Your task to perform on an android device: View the shopping cart on bestbuy.com. Add "logitech g502" to the cart on bestbuy.com, then select checkout. Image 0: 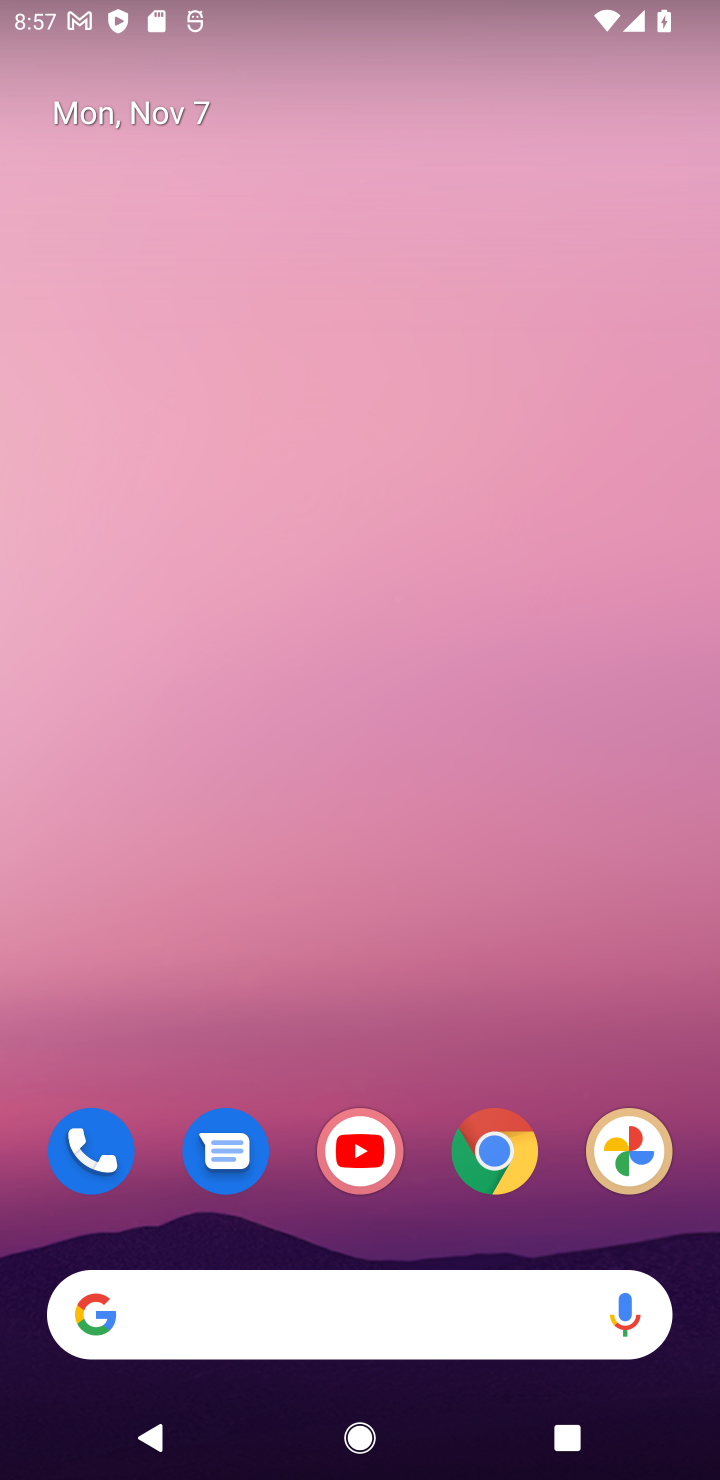
Step 0: click (501, 1156)
Your task to perform on an android device: View the shopping cart on bestbuy.com. Add "logitech g502" to the cart on bestbuy.com, then select checkout. Image 1: 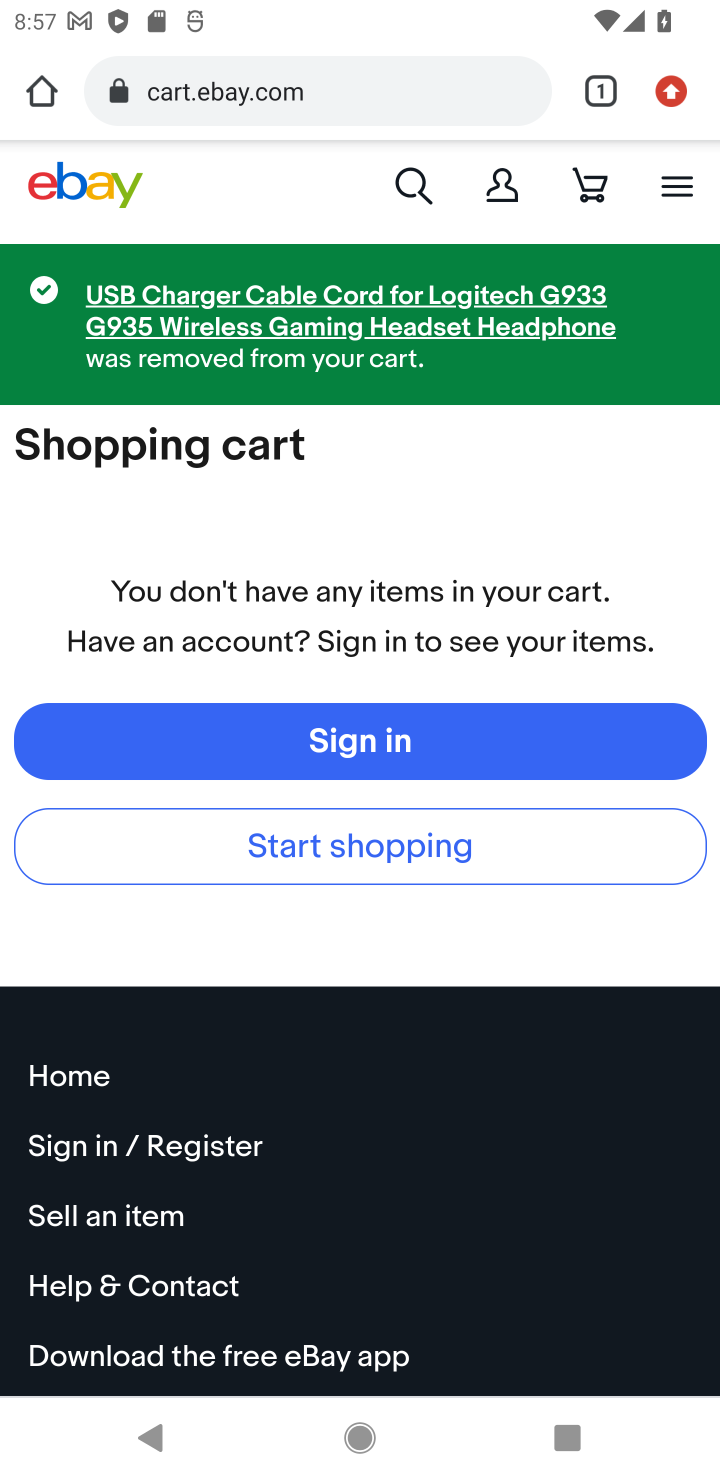
Step 1: click (207, 94)
Your task to perform on an android device: View the shopping cart on bestbuy.com. Add "logitech g502" to the cart on bestbuy.com, then select checkout. Image 2: 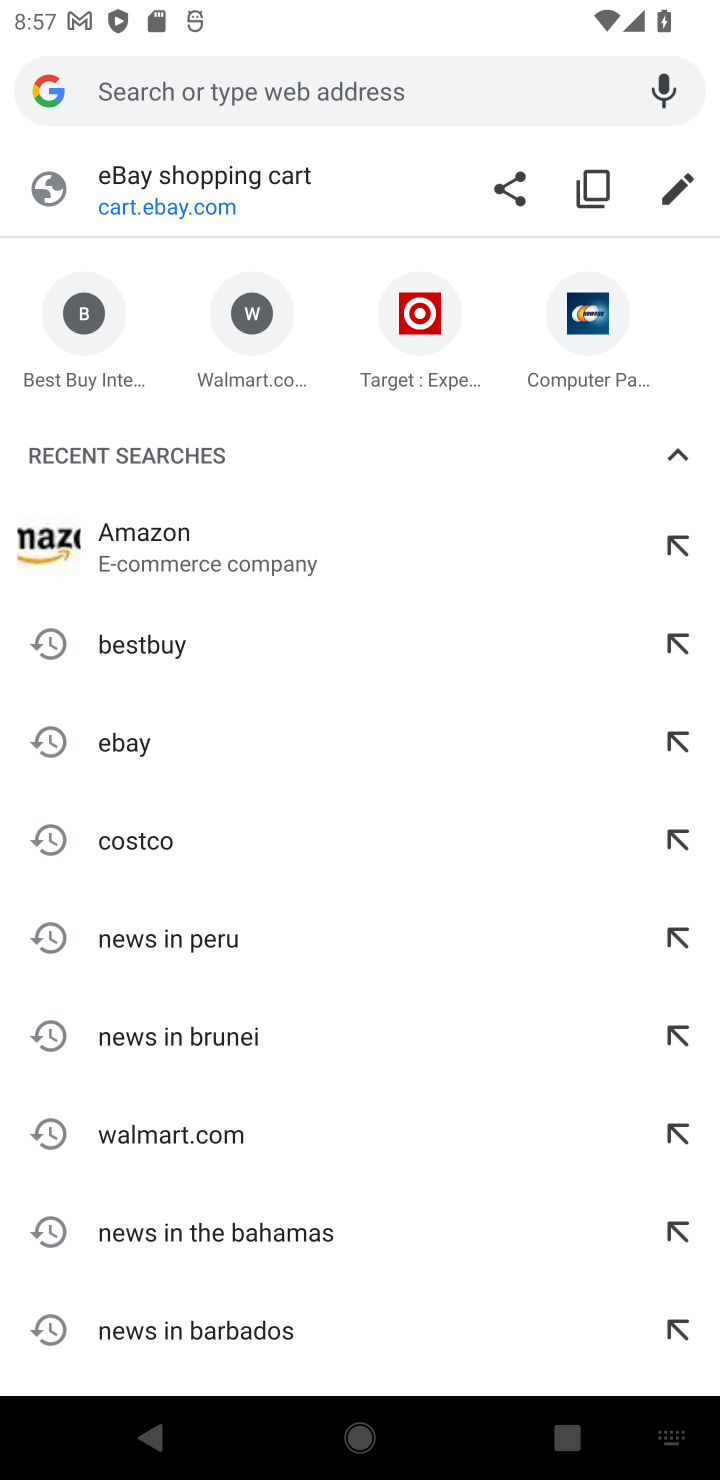
Step 2: click (129, 640)
Your task to perform on an android device: View the shopping cart on bestbuy.com. Add "logitech g502" to the cart on bestbuy.com, then select checkout. Image 3: 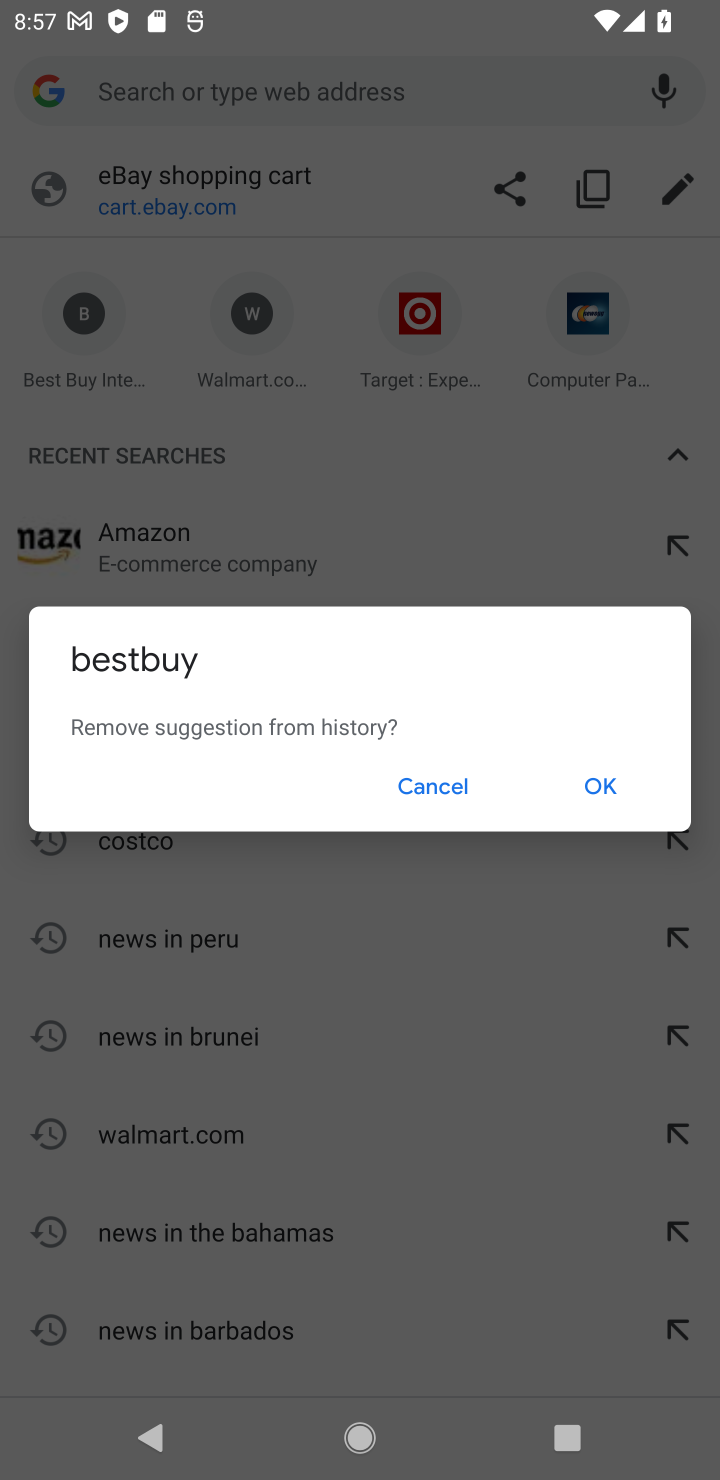
Step 3: click (449, 791)
Your task to perform on an android device: View the shopping cart on bestbuy.com. Add "logitech g502" to the cart on bestbuy.com, then select checkout. Image 4: 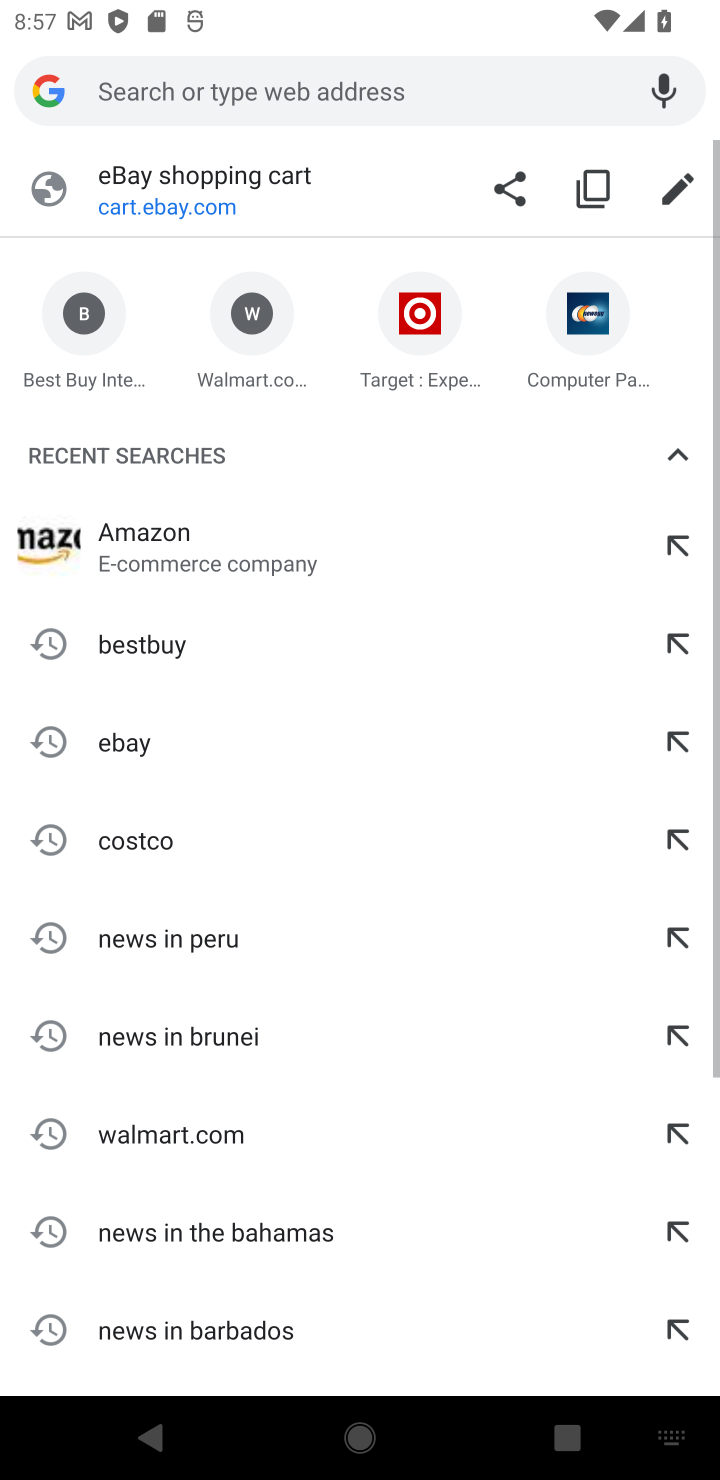
Step 4: click (128, 644)
Your task to perform on an android device: View the shopping cart on bestbuy.com. Add "logitech g502" to the cart on bestbuy.com, then select checkout. Image 5: 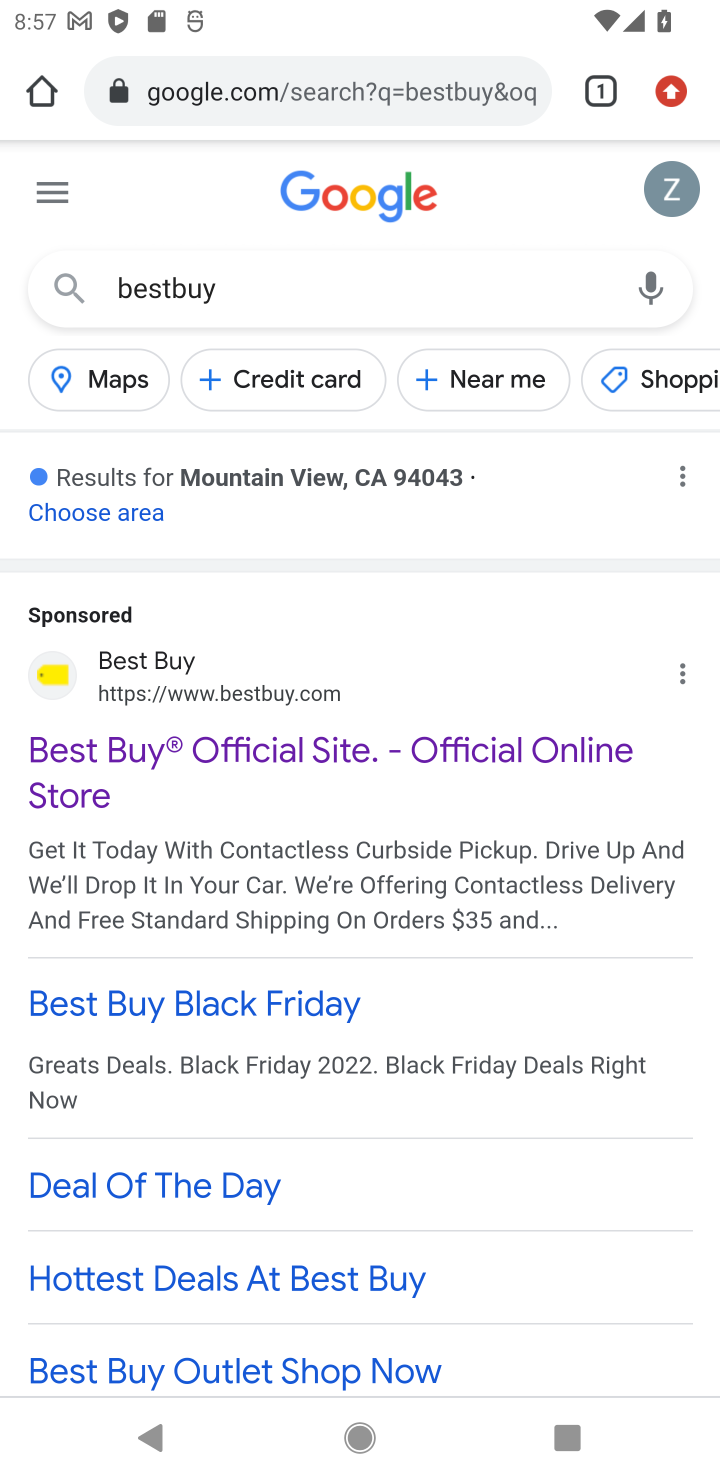
Step 5: click (271, 741)
Your task to perform on an android device: View the shopping cart on bestbuy.com. Add "logitech g502" to the cart on bestbuy.com, then select checkout. Image 6: 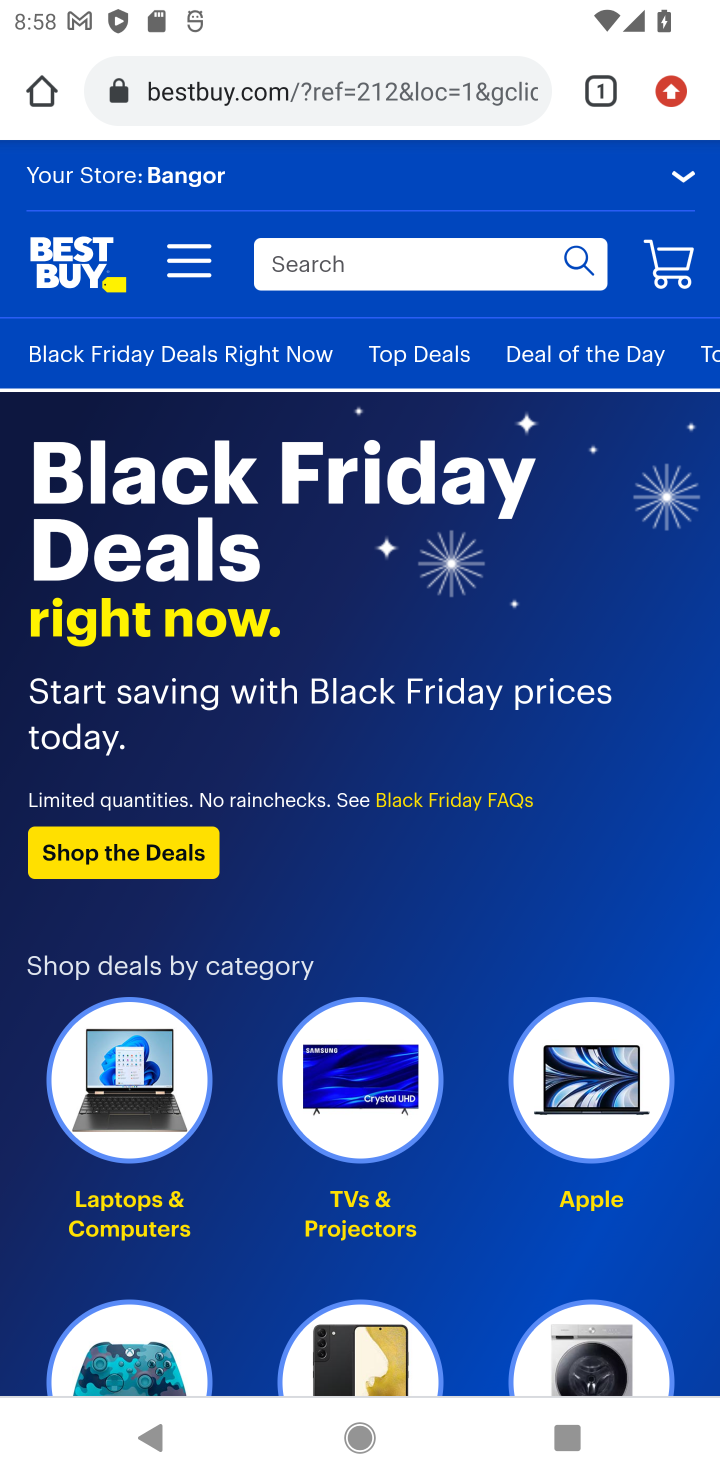
Step 6: click (413, 257)
Your task to perform on an android device: View the shopping cart on bestbuy.com. Add "logitech g502" to the cart on bestbuy.com, then select checkout. Image 7: 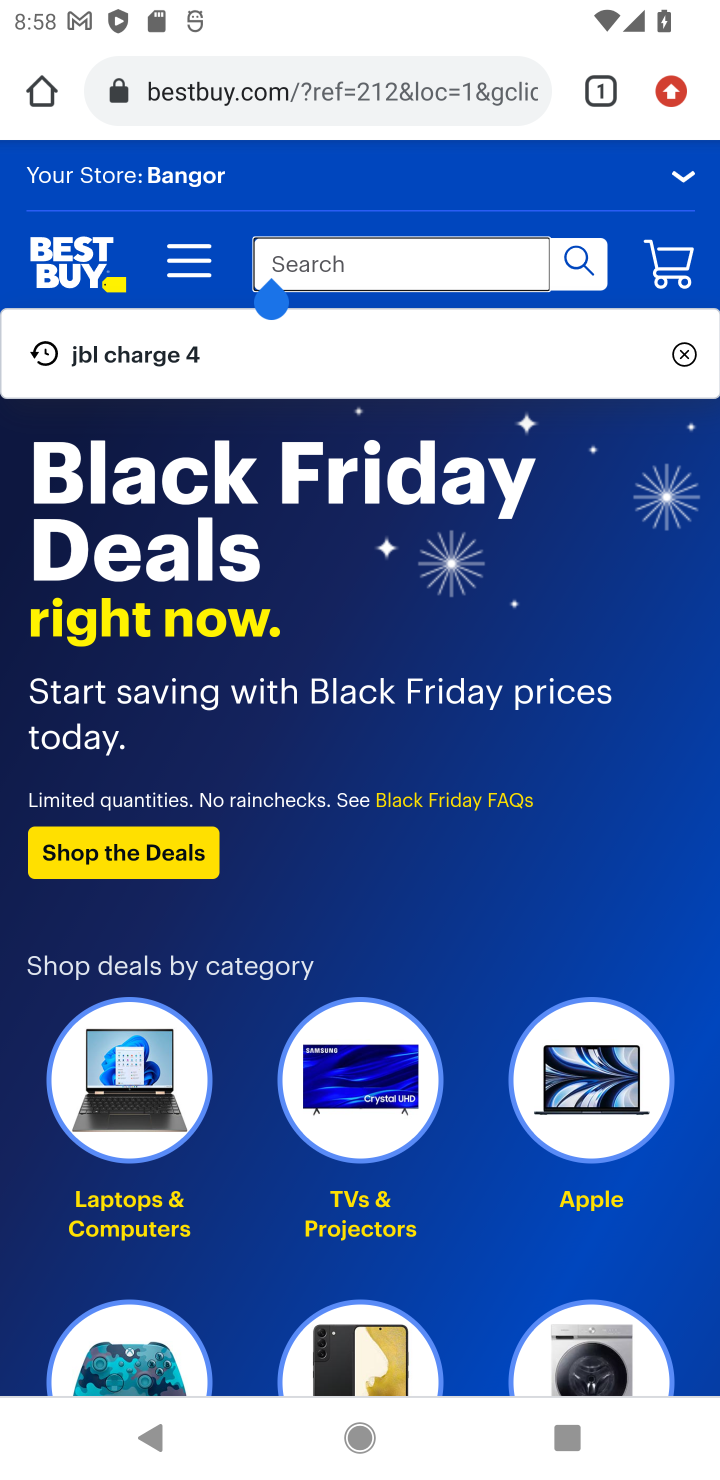
Step 7: click (413, 261)
Your task to perform on an android device: View the shopping cart on bestbuy.com. Add "logitech g502" to the cart on bestbuy.com, then select checkout. Image 8: 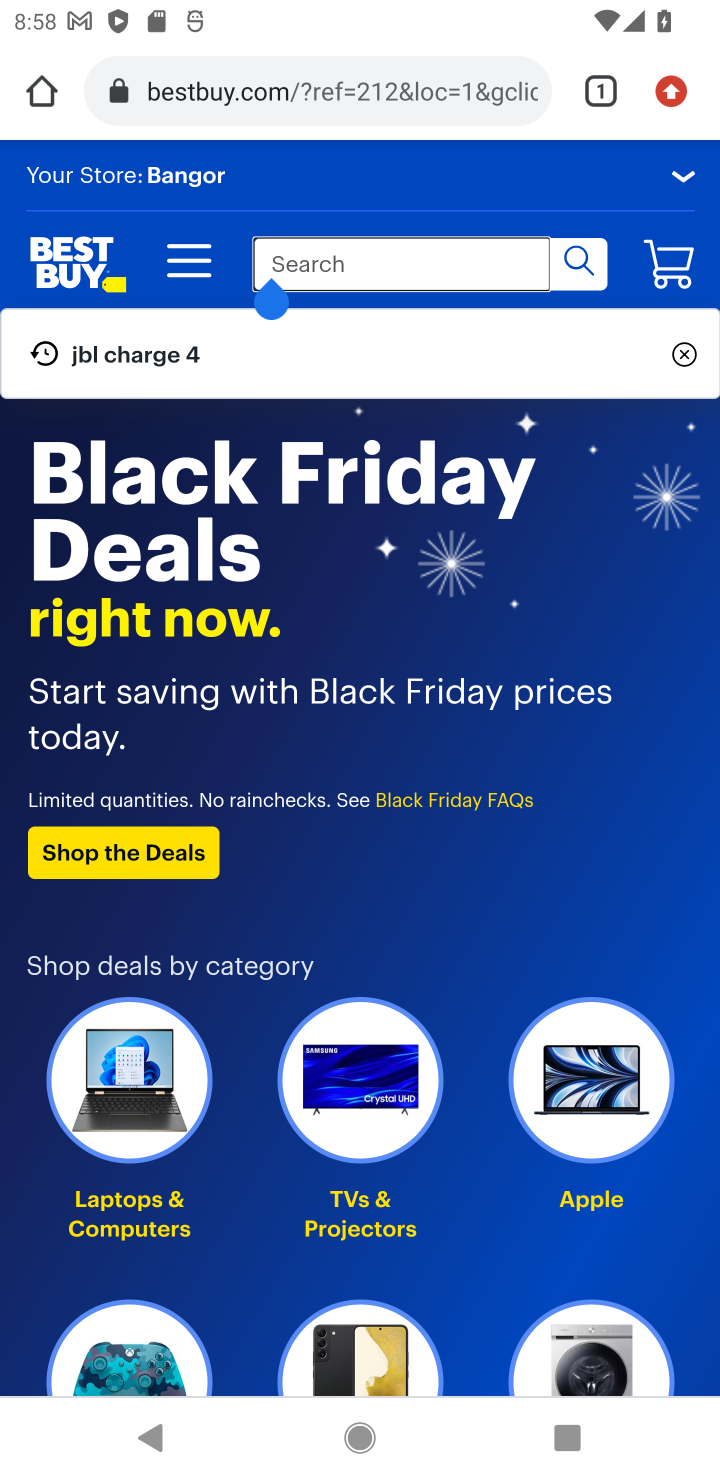
Step 8: press enter
Your task to perform on an android device: View the shopping cart on bestbuy.com. Add "logitech g502" to the cart on bestbuy.com, then select checkout. Image 9: 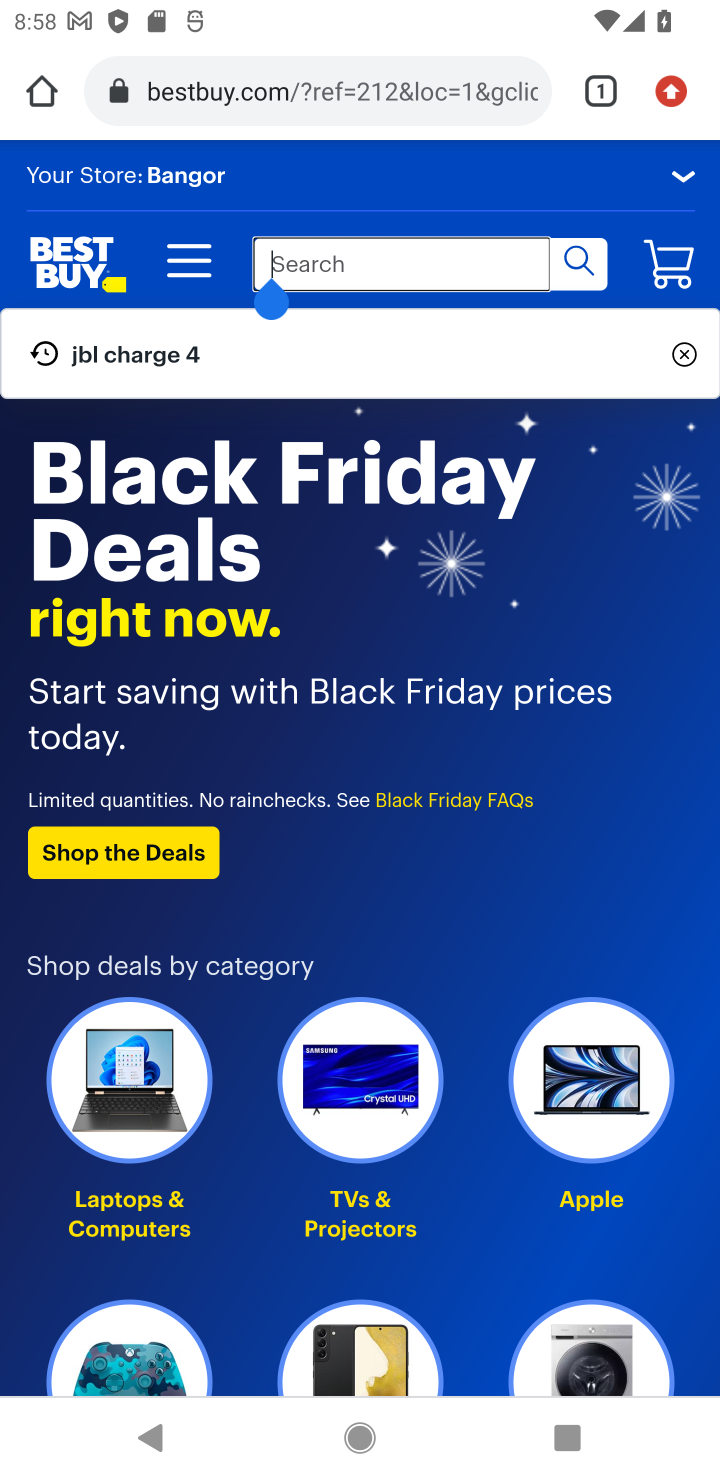
Step 9: type "logitech g502"
Your task to perform on an android device: View the shopping cart on bestbuy.com. Add "logitech g502" to the cart on bestbuy.com, then select checkout. Image 10: 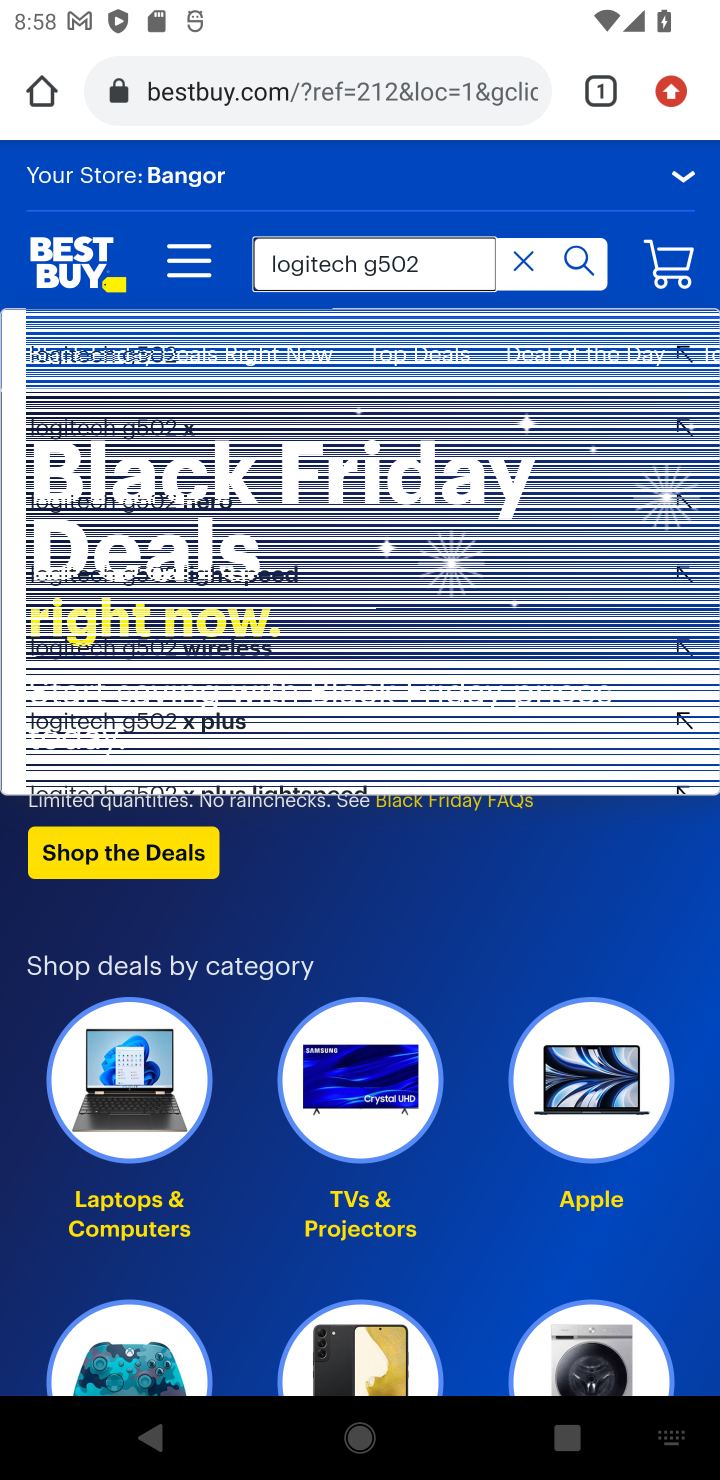
Step 10: press enter
Your task to perform on an android device: View the shopping cart on bestbuy.com. Add "logitech g502" to the cart on bestbuy.com, then select checkout. Image 11: 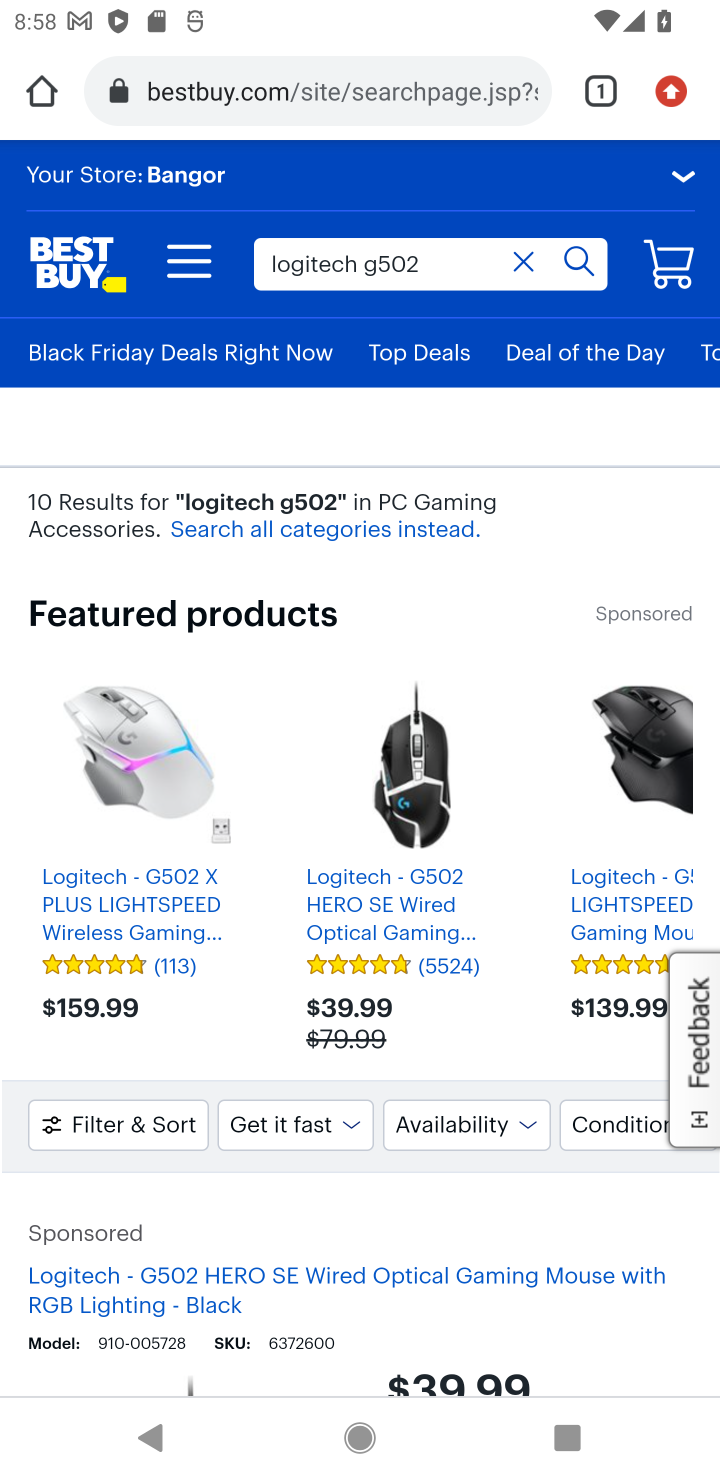
Step 11: drag from (393, 1239) to (709, 459)
Your task to perform on an android device: View the shopping cart on bestbuy.com. Add "logitech g502" to the cart on bestbuy.com, then select checkout. Image 12: 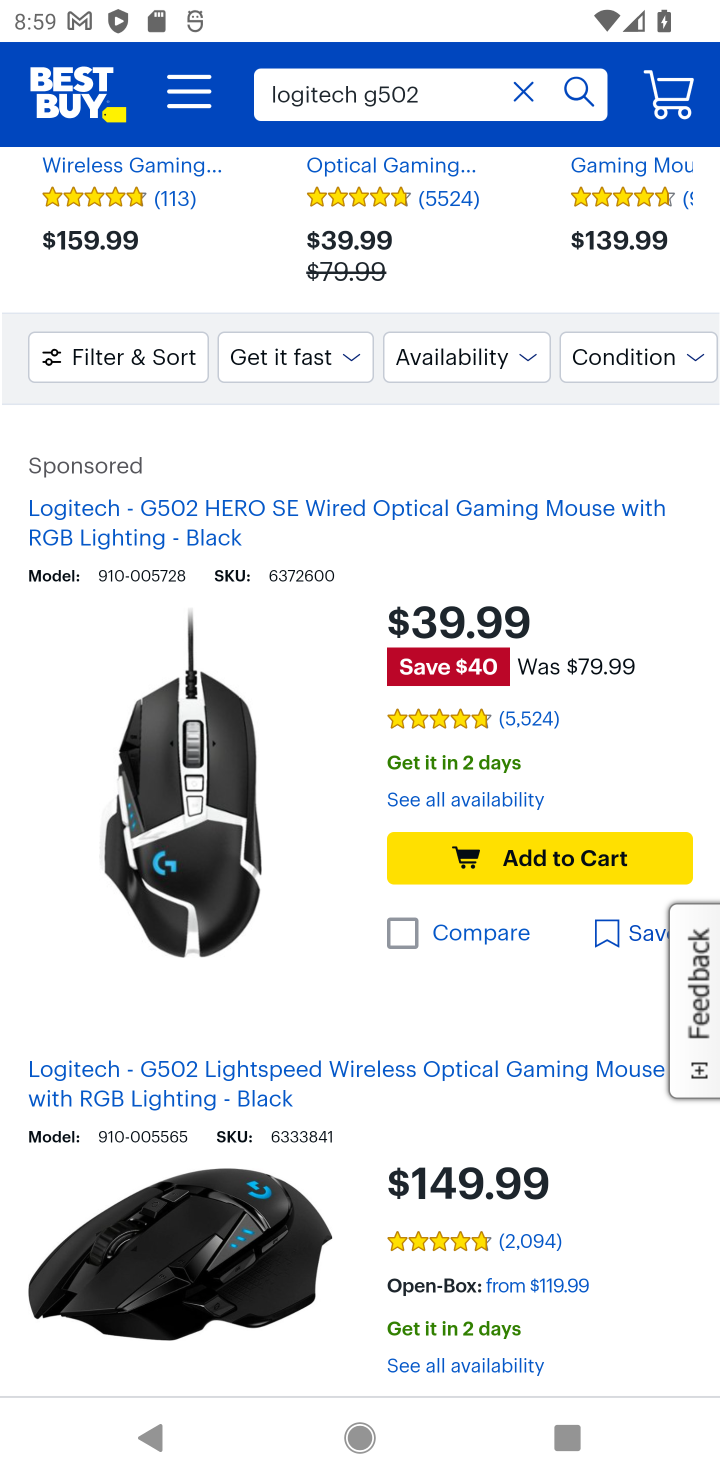
Step 12: click (579, 855)
Your task to perform on an android device: View the shopping cart on bestbuy.com. Add "logitech g502" to the cart on bestbuy.com, then select checkout. Image 13: 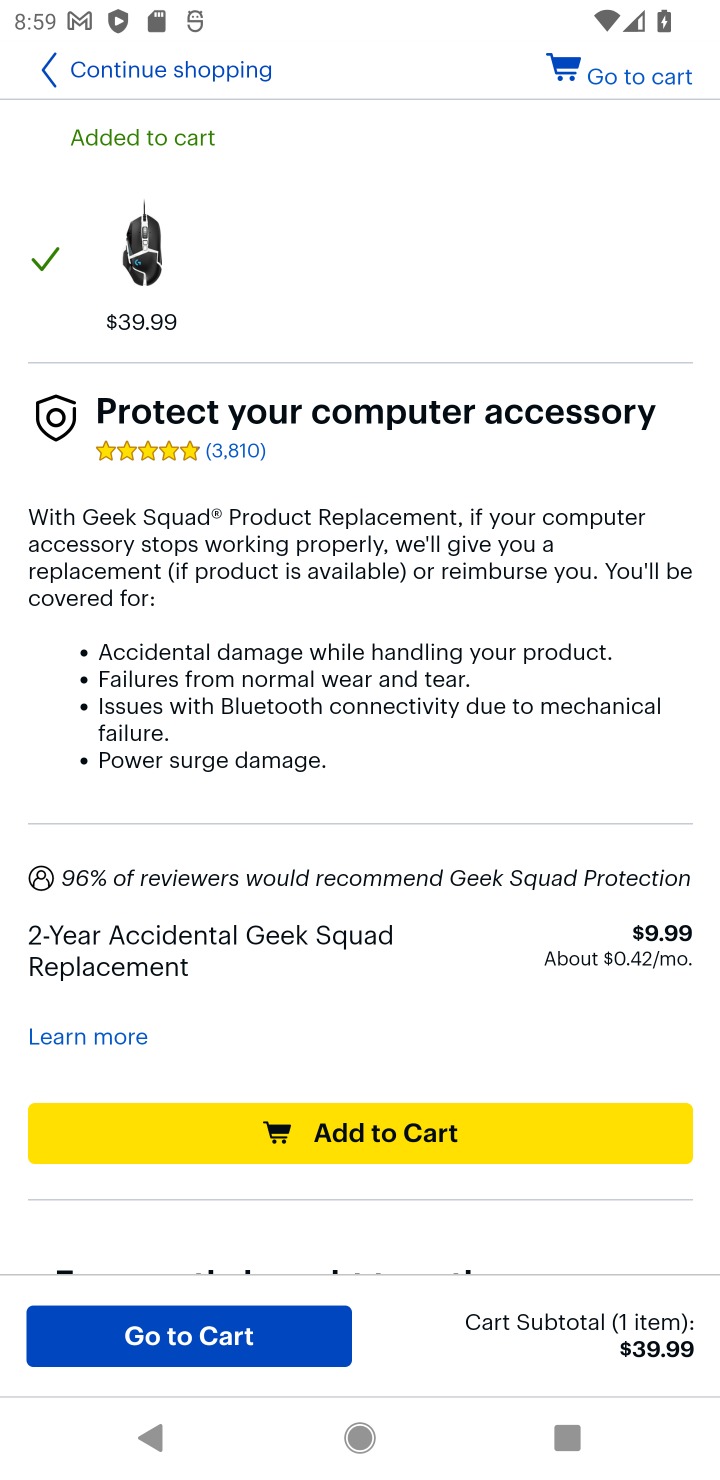
Step 13: click (671, 73)
Your task to perform on an android device: View the shopping cart on bestbuy.com. Add "logitech g502" to the cart on bestbuy.com, then select checkout. Image 14: 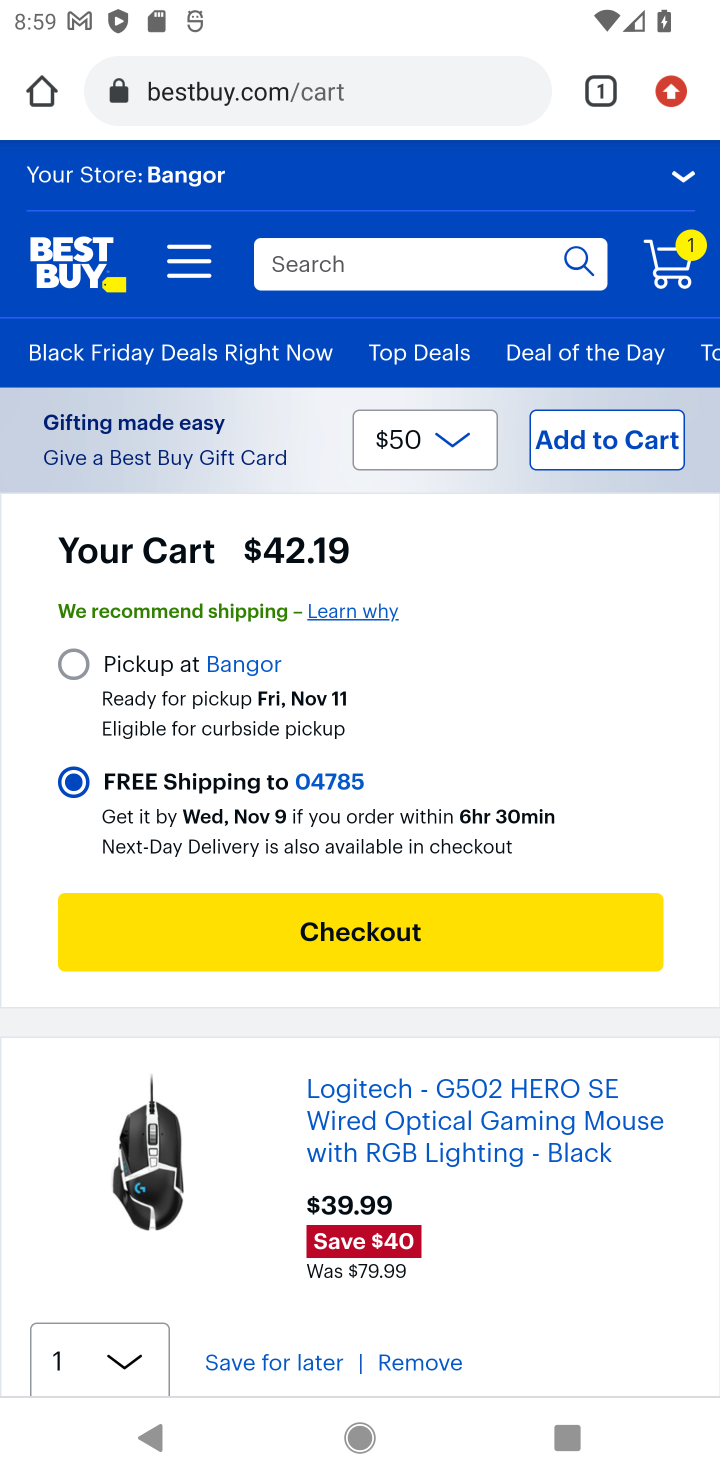
Step 14: click (405, 935)
Your task to perform on an android device: View the shopping cart on bestbuy.com. Add "logitech g502" to the cart on bestbuy.com, then select checkout. Image 15: 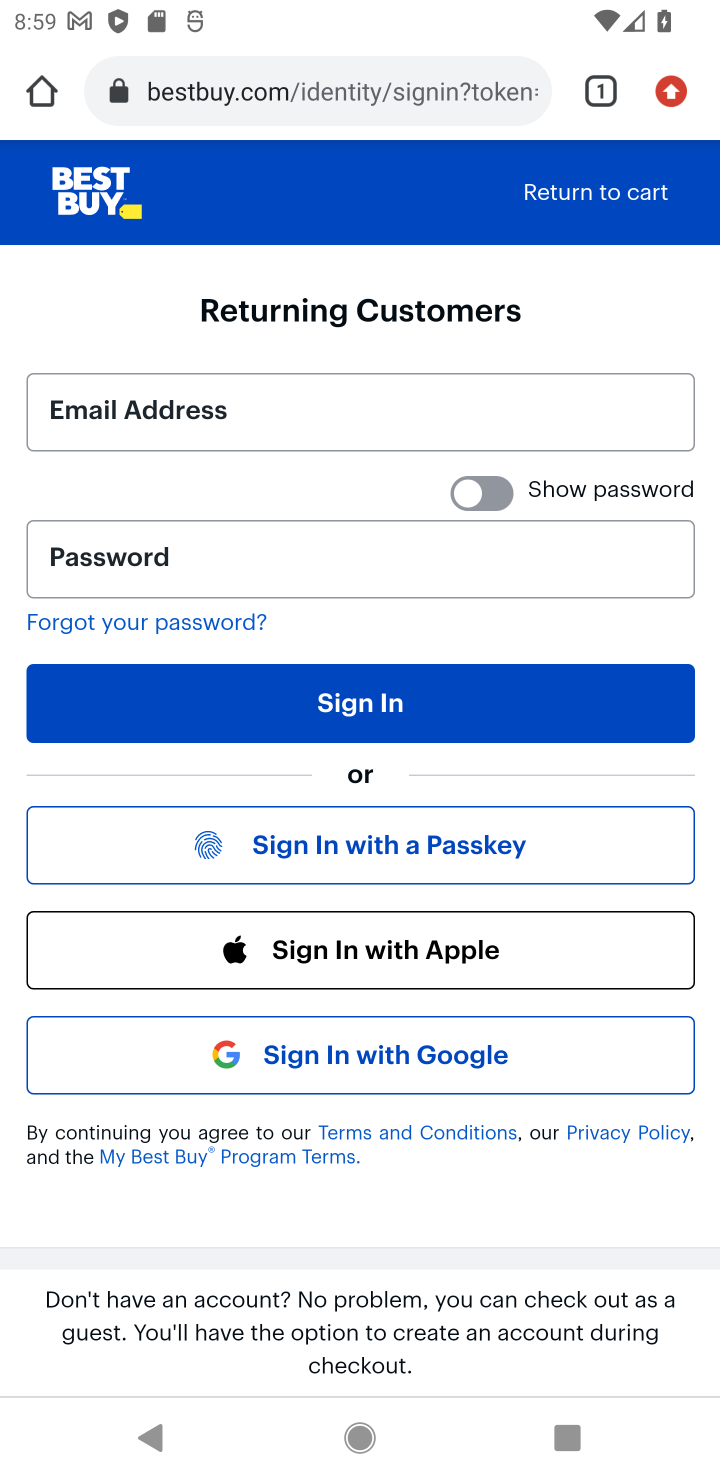
Step 15: task complete